Your task to perform on an android device: Go to wifi settings Image 0: 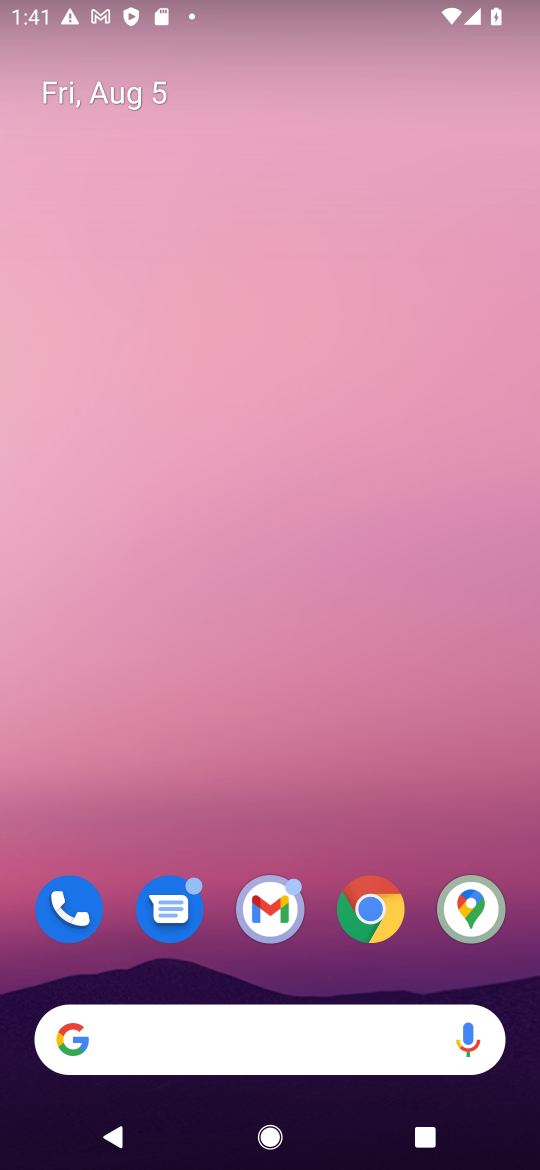
Step 0: drag from (352, 799) to (326, 72)
Your task to perform on an android device: Go to wifi settings Image 1: 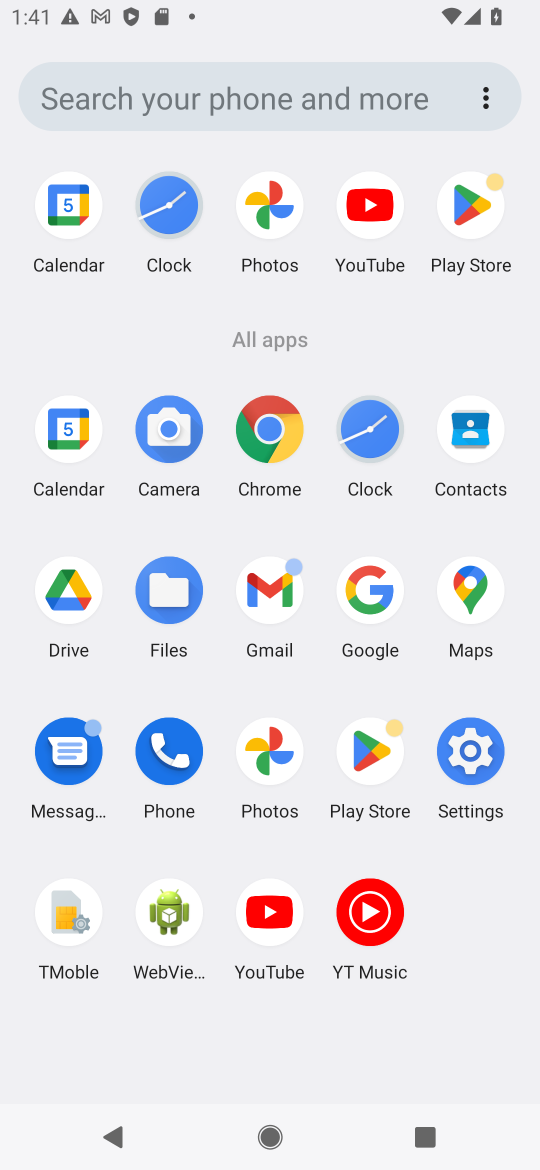
Step 1: click (475, 756)
Your task to perform on an android device: Go to wifi settings Image 2: 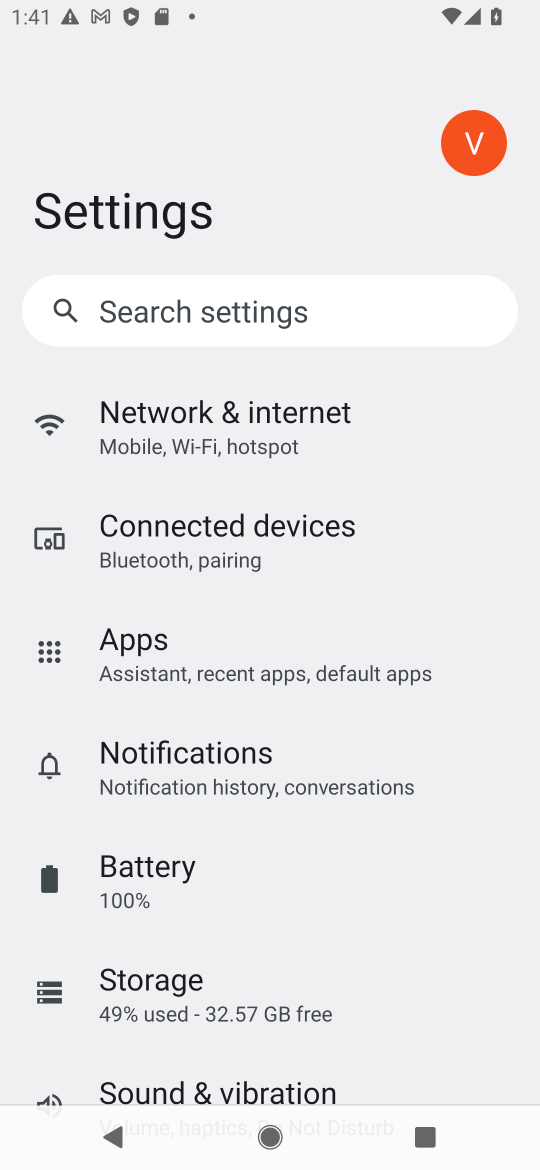
Step 2: click (146, 406)
Your task to perform on an android device: Go to wifi settings Image 3: 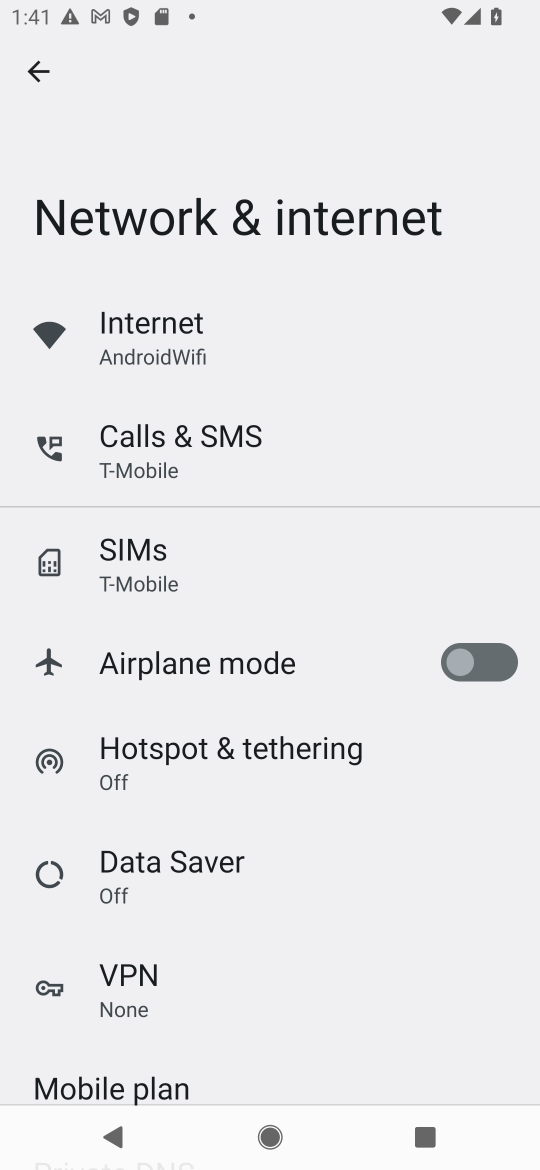
Step 3: click (136, 319)
Your task to perform on an android device: Go to wifi settings Image 4: 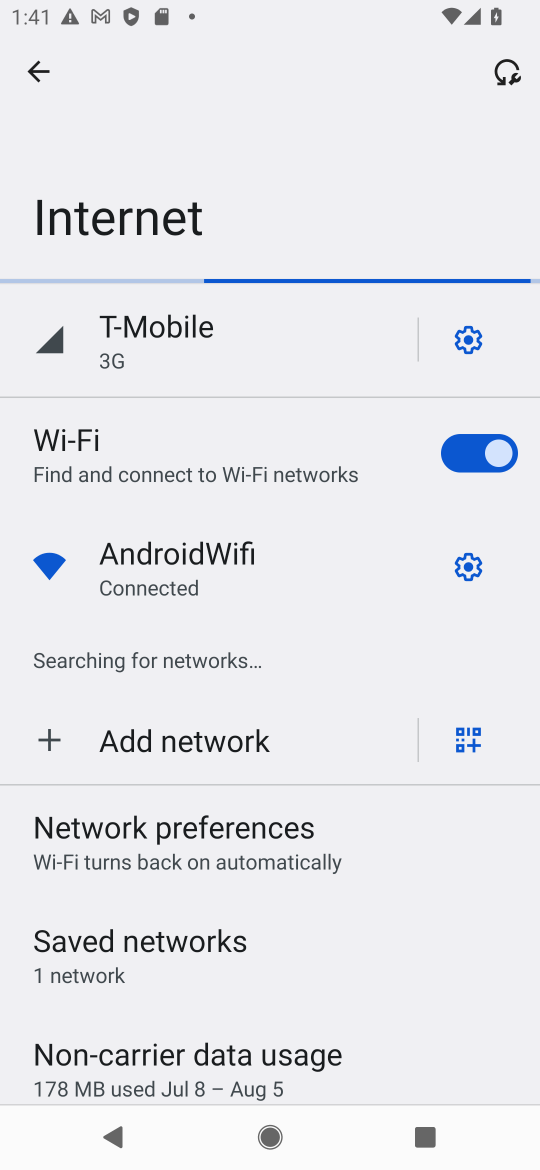
Step 4: task complete